Your task to perform on an android device: Go to privacy settings Image 0: 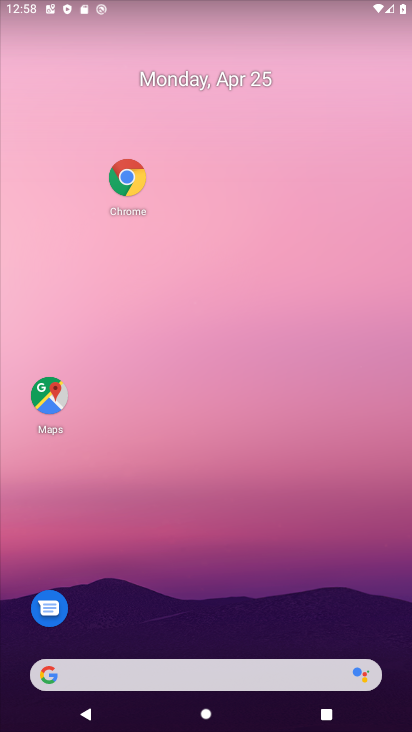
Step 0: drag from (216, 403) to (294, 86)
Your task to perform on an android device: Go to privacy settings Image 1: 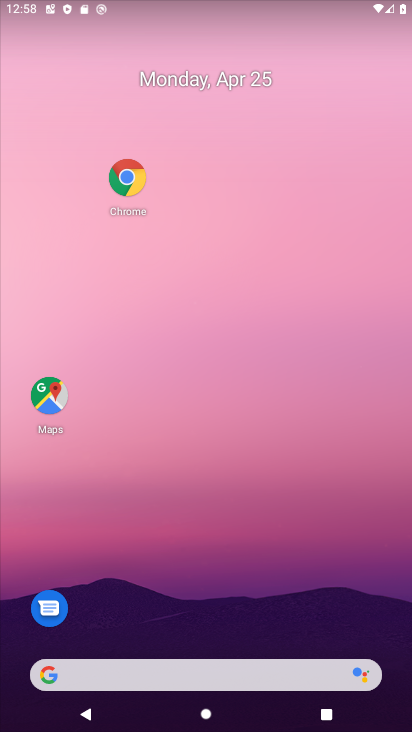
Step 1: click (309, 79)
Your task to perform on an android device: Go to privacy settings Image 2: 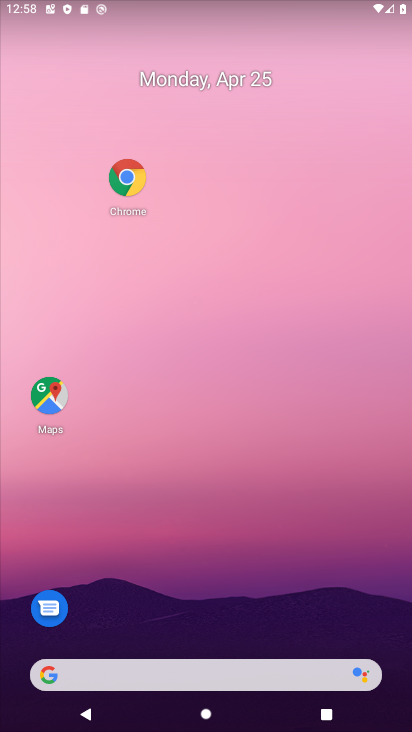
Step 2: drag from (225, 606) to (267, 121)
Your task to perform on an android device: Go to privacy settings Image 3: 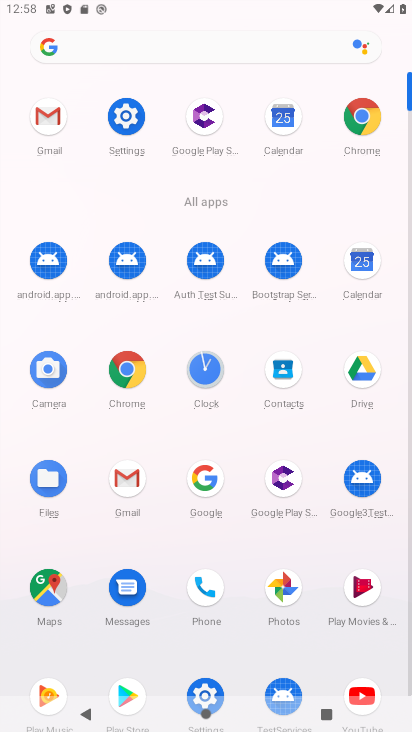
Step 3: click (197, 688)
Your task to perform on an android device: Go to privacy settings Image 4: 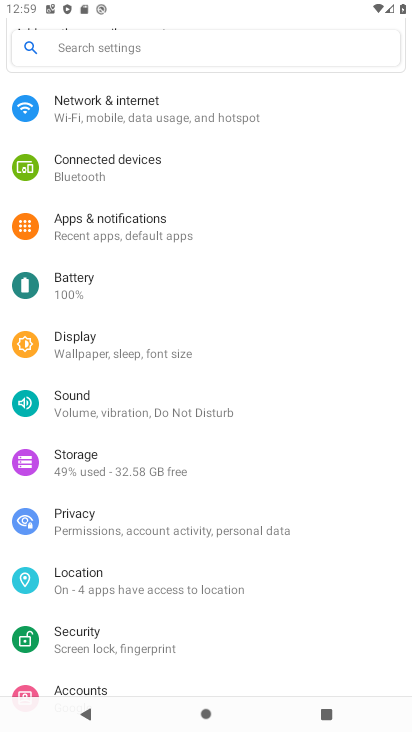
Step 4: click (119, 531)
Your task to perform on an android device: Go to privacy settings Image 5: 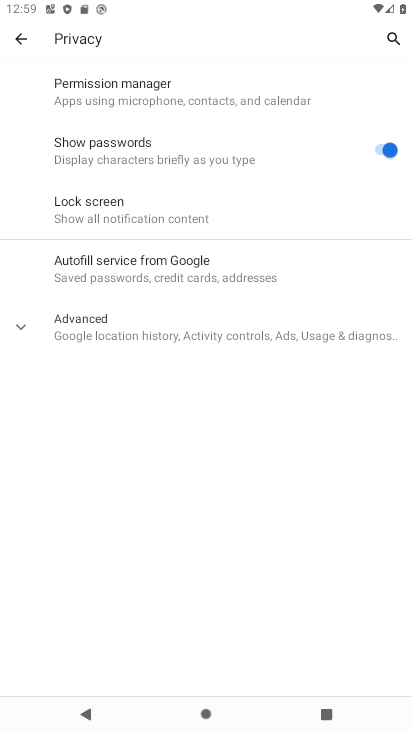
Step 5: click (164, 341)
Your task to perform on an android device: Go to privacy settings Image 6: 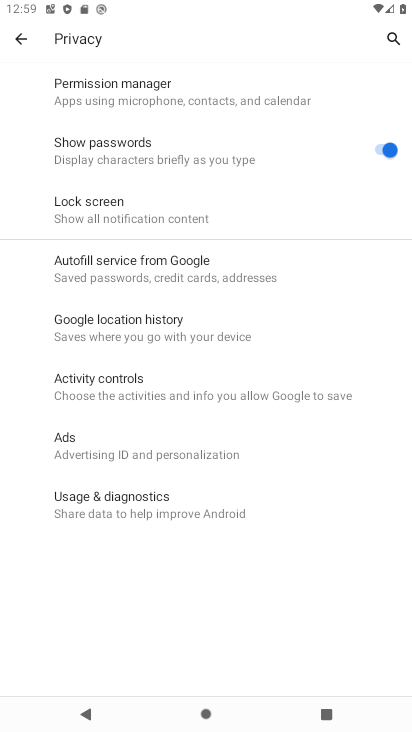
Step 6: task complete